Your task to perform on an android device: turn off airplane mode Image 0: 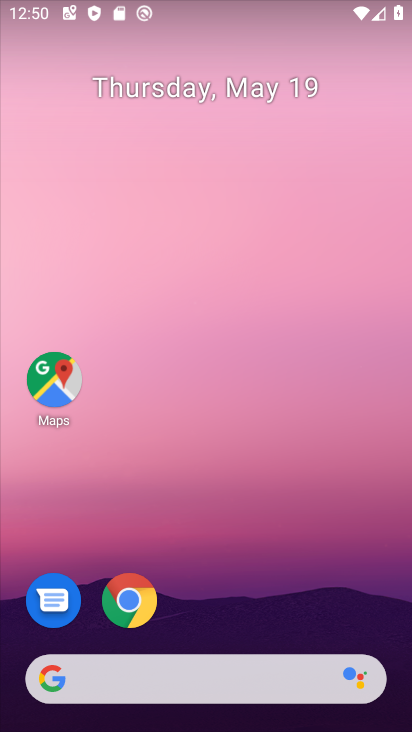
Step 0: drag from (319, 625) to (247, 135)
Your task to perform on an android device: turn off airplane mode Image 1: 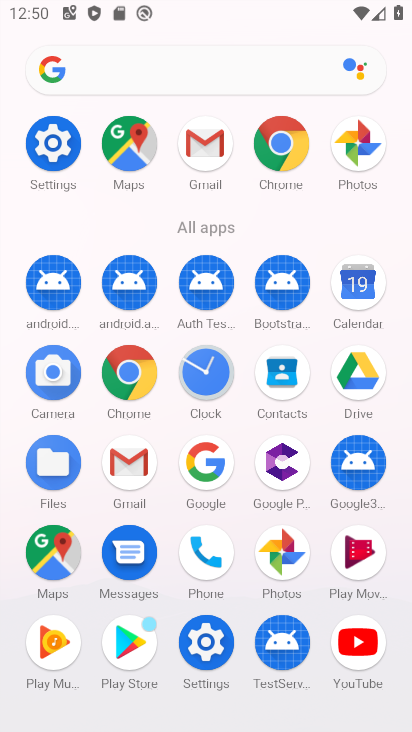
Step 1: click (25, 164)
Your task to perform on an android device: turn off airplane mode Image 2: 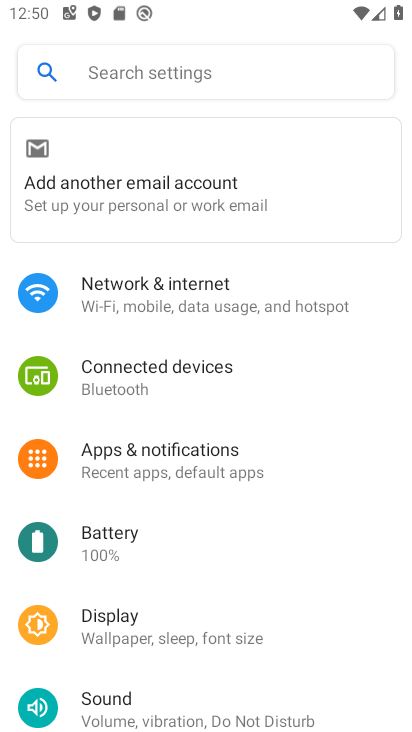
Step 2: click (196, 306)
Your task to perform on an android device: turn off airplane mode Image 3: 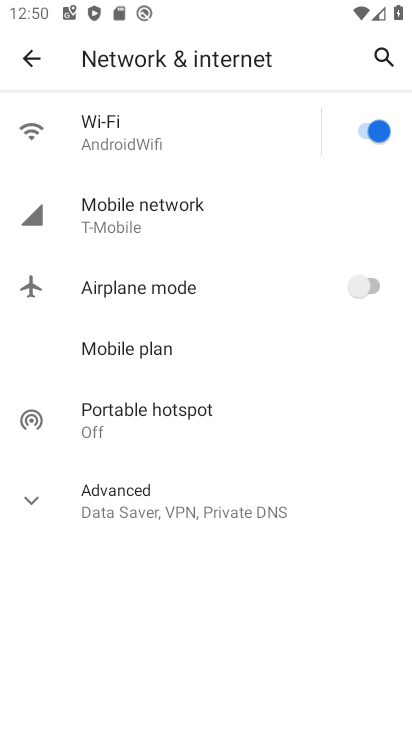
Step 3: task complete